Your task to perform on an android device: Go to eBay Image 0: 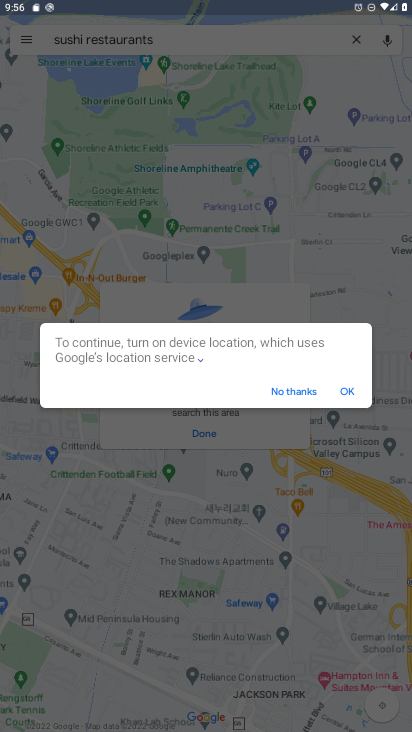
Step 0: press home button
Your task to perform on an android device: Go to eBay Image 1: 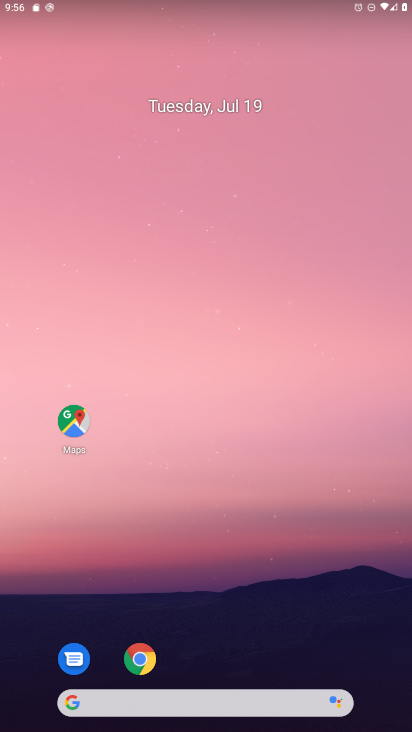
Step 1: click (146, 664)
Your task to perform on an android device: Go to eBay Image 2: 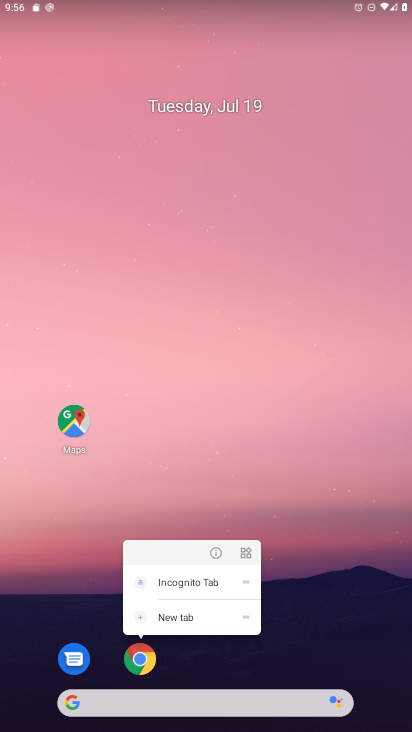
Step 2: click (146, 663)
Your task to perform on an android device: Go to eBay Image 3: 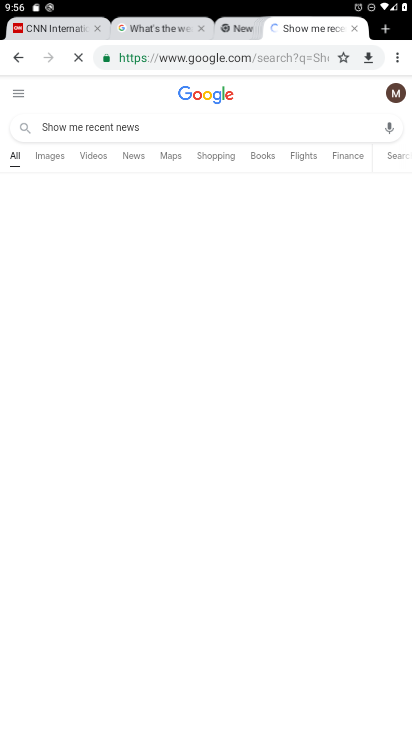
Step 3: click (397, 24)
Your task to perform on an android device: Go to eBay Image 4: 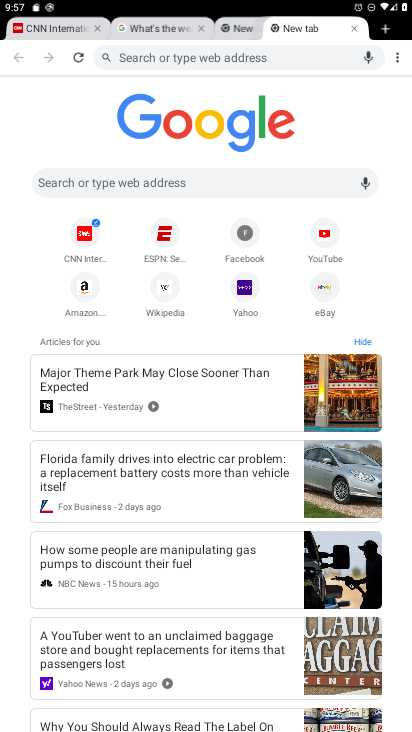
Step 4: click (319, 282)
Your task to perform on an android device: Go to eBay Image 5: 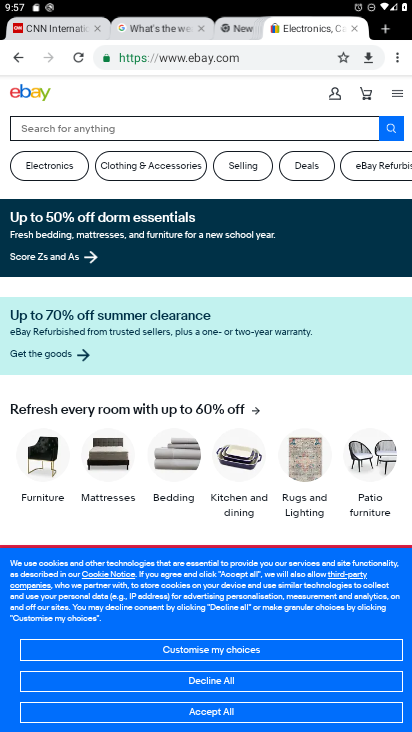
Step 5: task complete